Your task to perform on an android device: toggle notification dots Image 0: 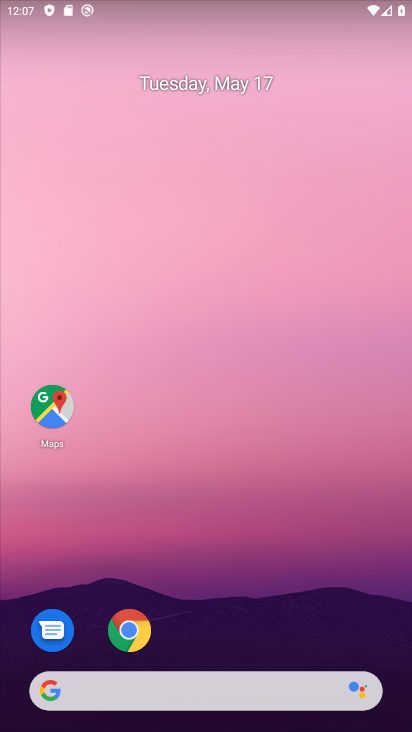
Step 0: drag from (190, 670) to (379, 104)
Your task to perform on an android device: toggle notification dots Image 1: 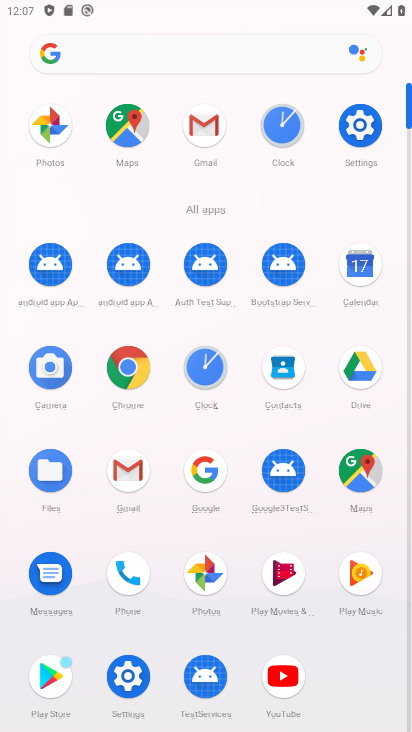
Step 1: click (146, 687)
Your task to perform on an android device: toggle notification dots Image 2: 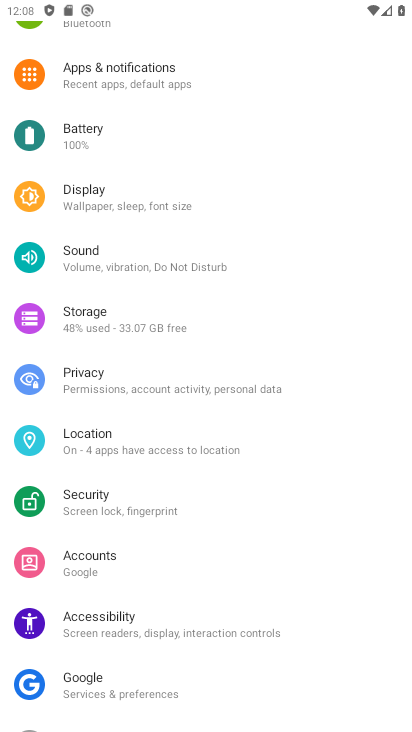
Step 2: click (185, 73)
Your task to perform on an android device: toggle notification dots Image 3: 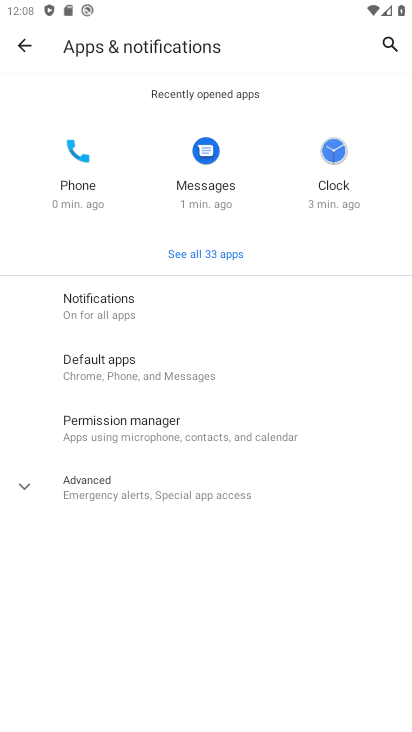
Step 3: click (198, 292)
Your task to perform on an android device: toggle notification dots Image 4: 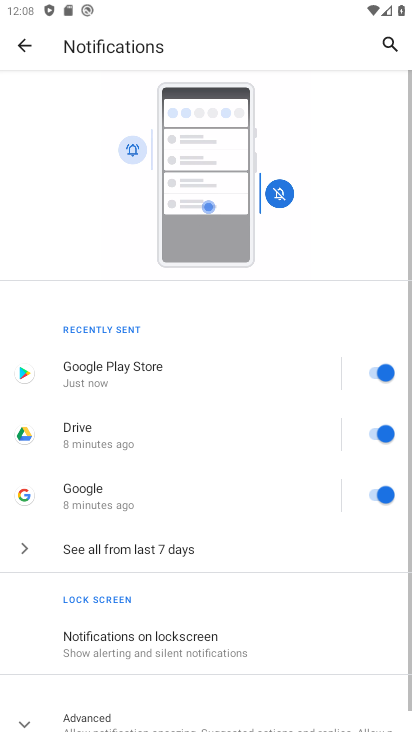
Step 4: drag from (154, 672) to (269, 262)
Your task to perform on an android device: toggle notification dots Image 5: 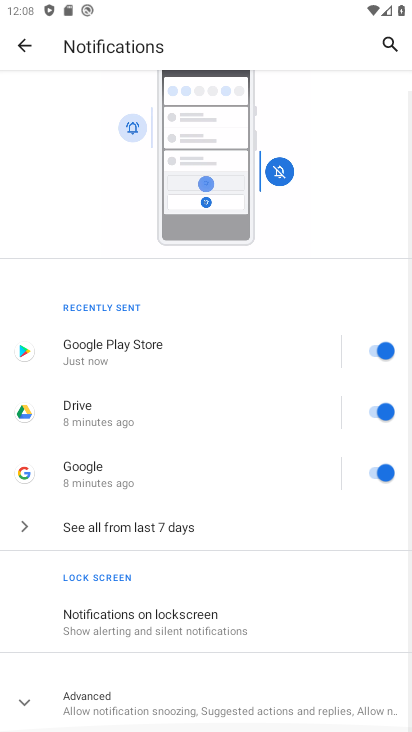
Step 5: click (87, 719)
Your task to perform on an android device: toggle notification dots Image 6: 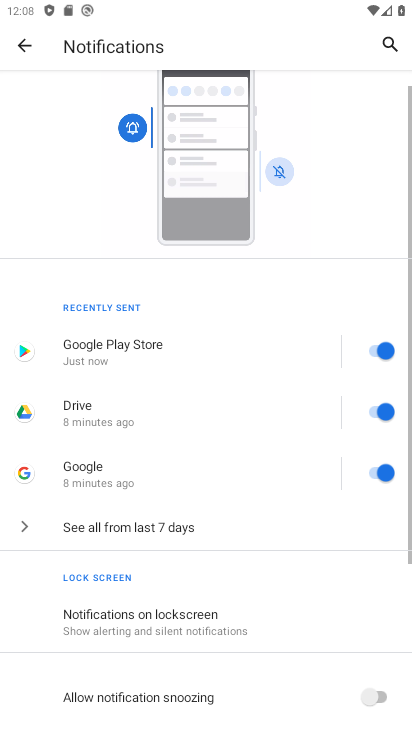
Step 6: drag from (99, 714) to (264, 239)
Your task to perform on an android device: toggle notification dots Image 7: 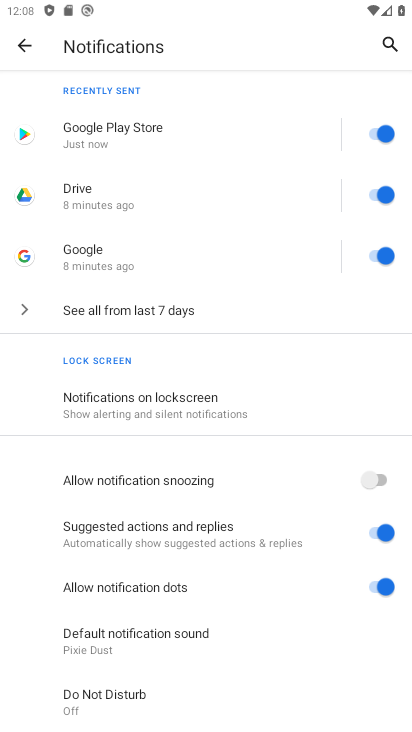
Step 7: click (381, 578)
Your task to perform on an android device: toggle notification dots Image 8: 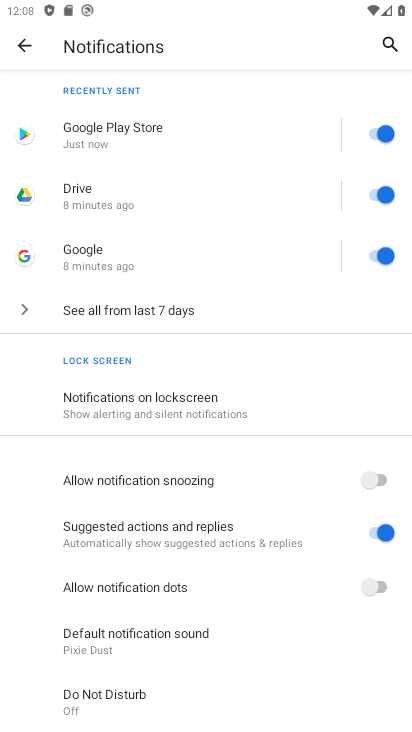
Step 8: task complete